Your task to perform on an android device: change alarm snooze length Image 0: 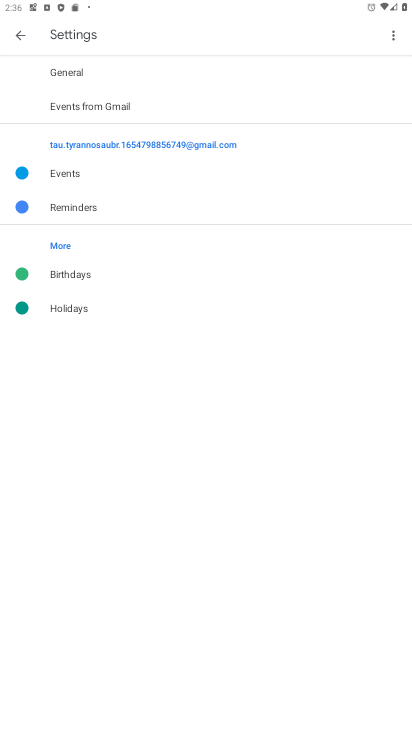
Step 0: press home button
Your task to perform on an android device: change alarm snooze length Image 1: 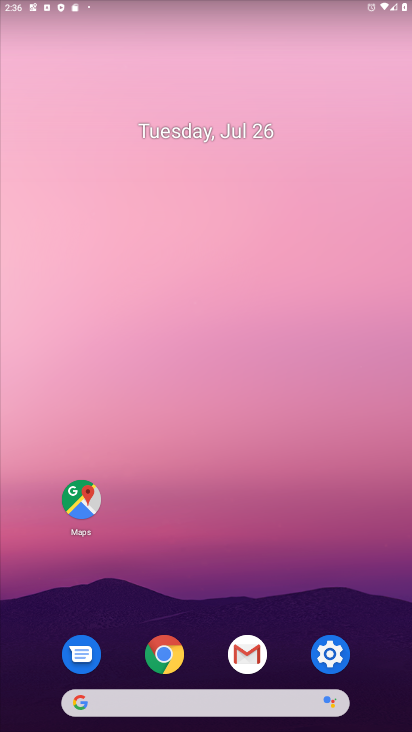
Step 1: drag from (258, 701) to (279, 139)
Your task to perform on an android device: change alarm snooze length Image 2: 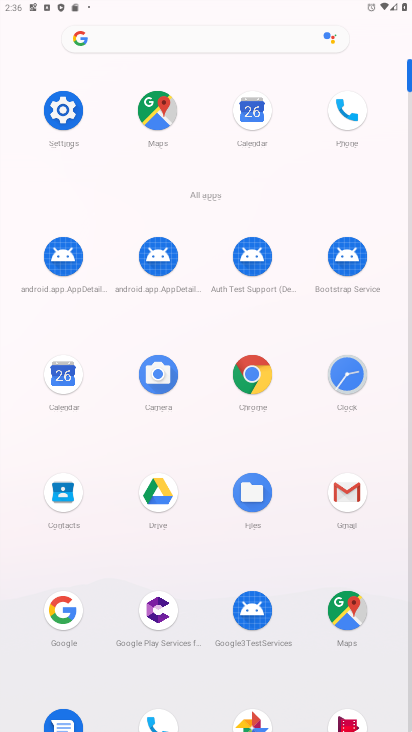
Step 2: click (350, 367)
Your task to perform on an android device: change alarm snooze length Image 3: 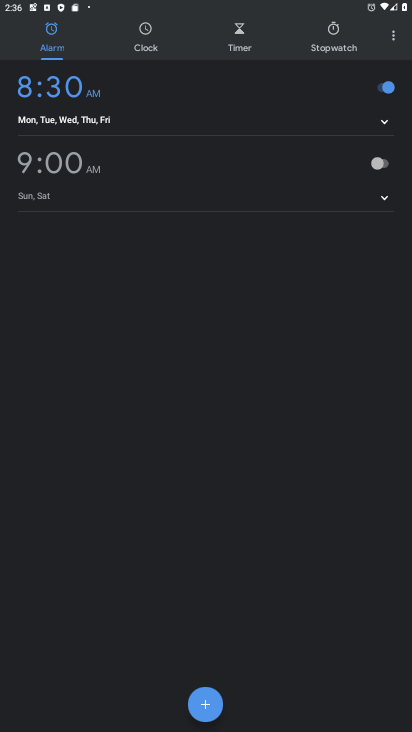
Step 3: click (386, 40)
Your task to perform on an android device: change alarm snooze length Image 4: 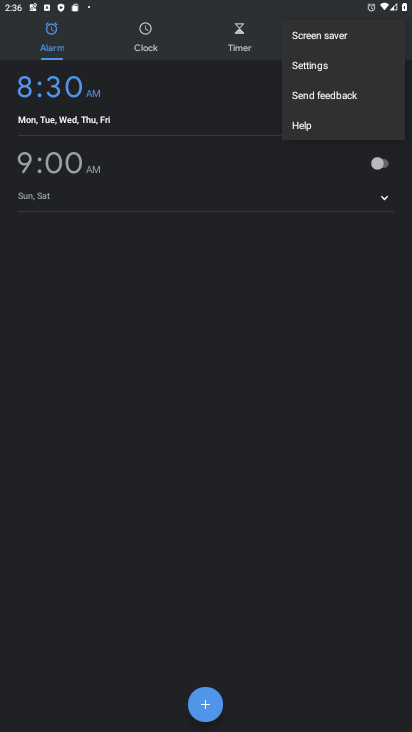
Step 4: click (314, 69)
Your task to perform on an android device: change alarm snooze length Image 5: 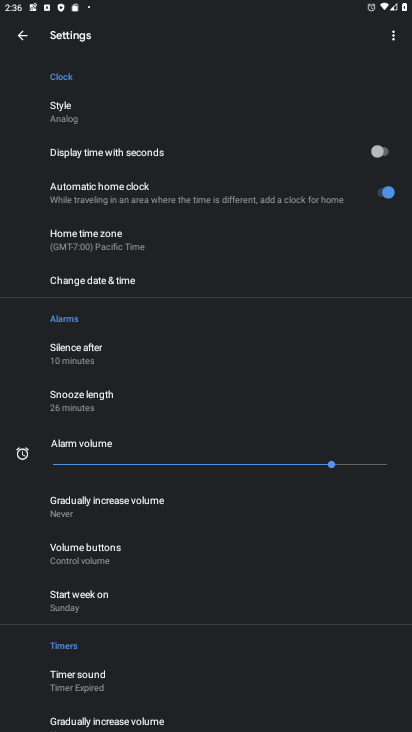
Step 5: click (117, 405)
Your task to perform on an android device: change alarm snooze length Image 6: 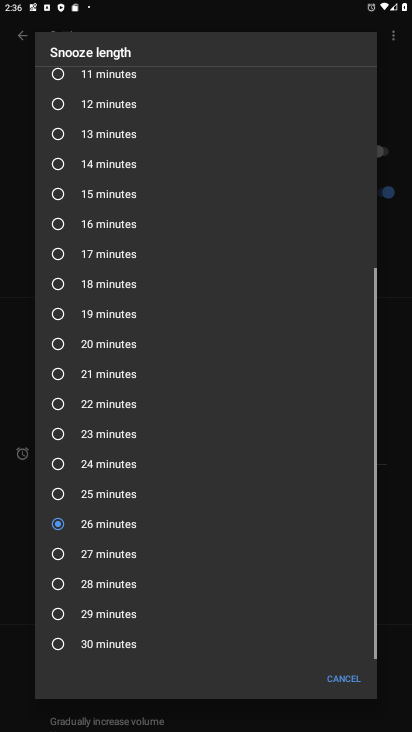
Step 6: click (99, 548)
Your task to perform on an android device: change alarm snooze length Image 7: 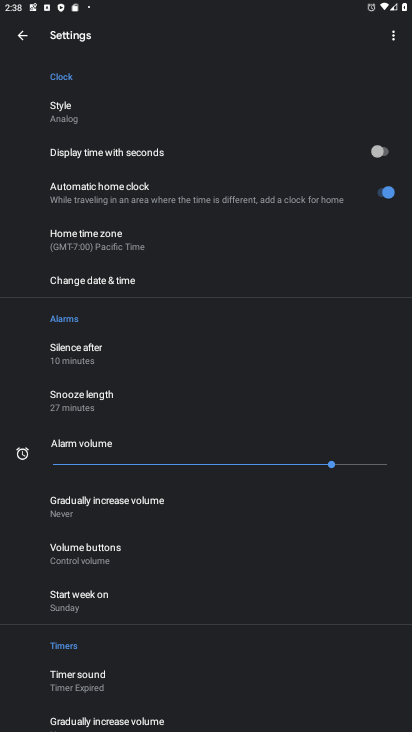
Step 7: task complete